Your task to perform on an android device: Go to Reddit.com Image 0: 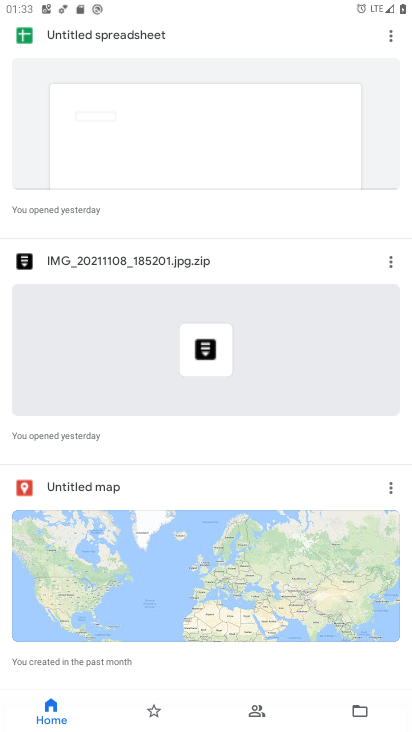
Step 0: press home button
Your task to perform on an android device: Go to Reddit.com Image 1: 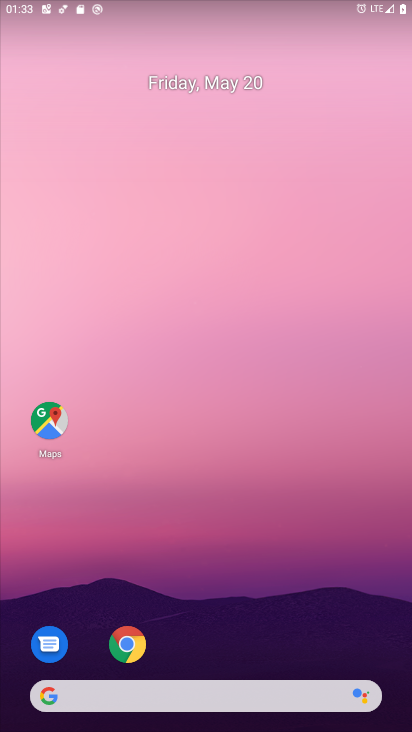
Step 1: drag from (167, 678) to (145, 331)
Your task to perform on an android device: Go to Reddit.com Image 2: 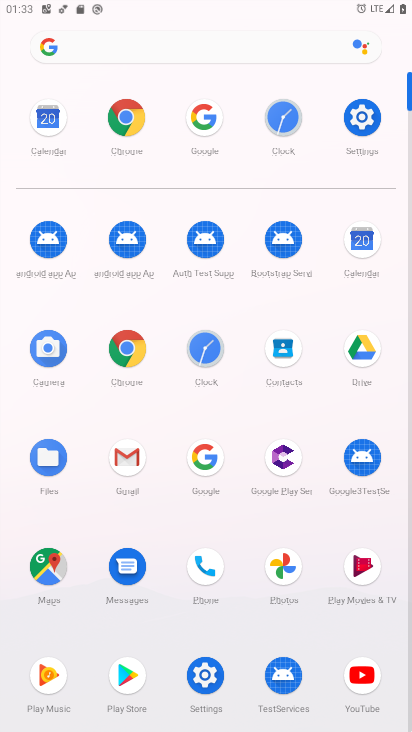
Step 2: click (205, 464)
Your task to perform on an android device: Go to Reddit.com Image 3: 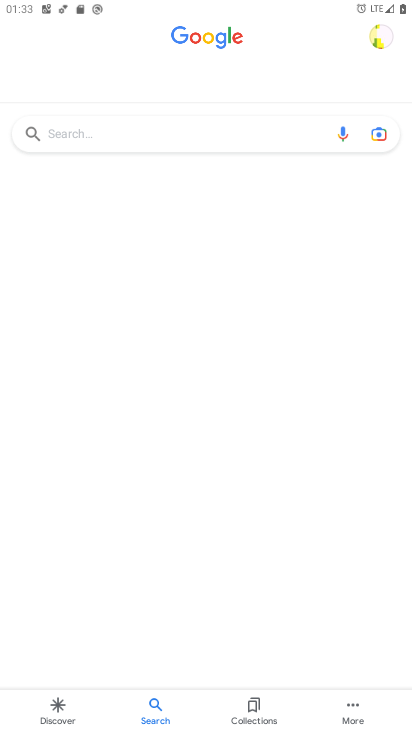
Step 3: click (60, 134)
Your task to perform on an android device: Go to Reddit.com Image 4: 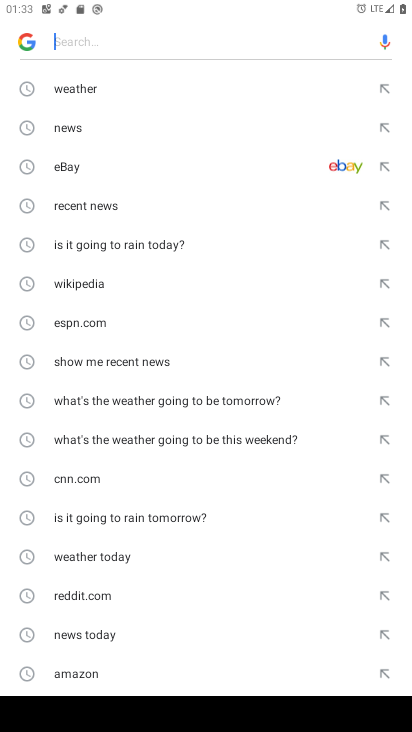
Step 4: click (64, 599)
Your task to perform on an android device: Go to Reddit.com Image 5: 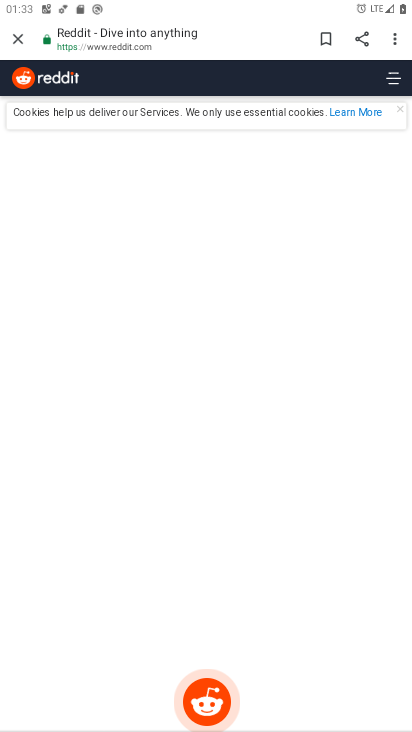
Step 5: task complete